Your task to perform on an android device: Show the shopping cart on bestbuy.com. Search for asus zenbook on bestbuy.com, select the first entry, and add it to the cart. Image 0: 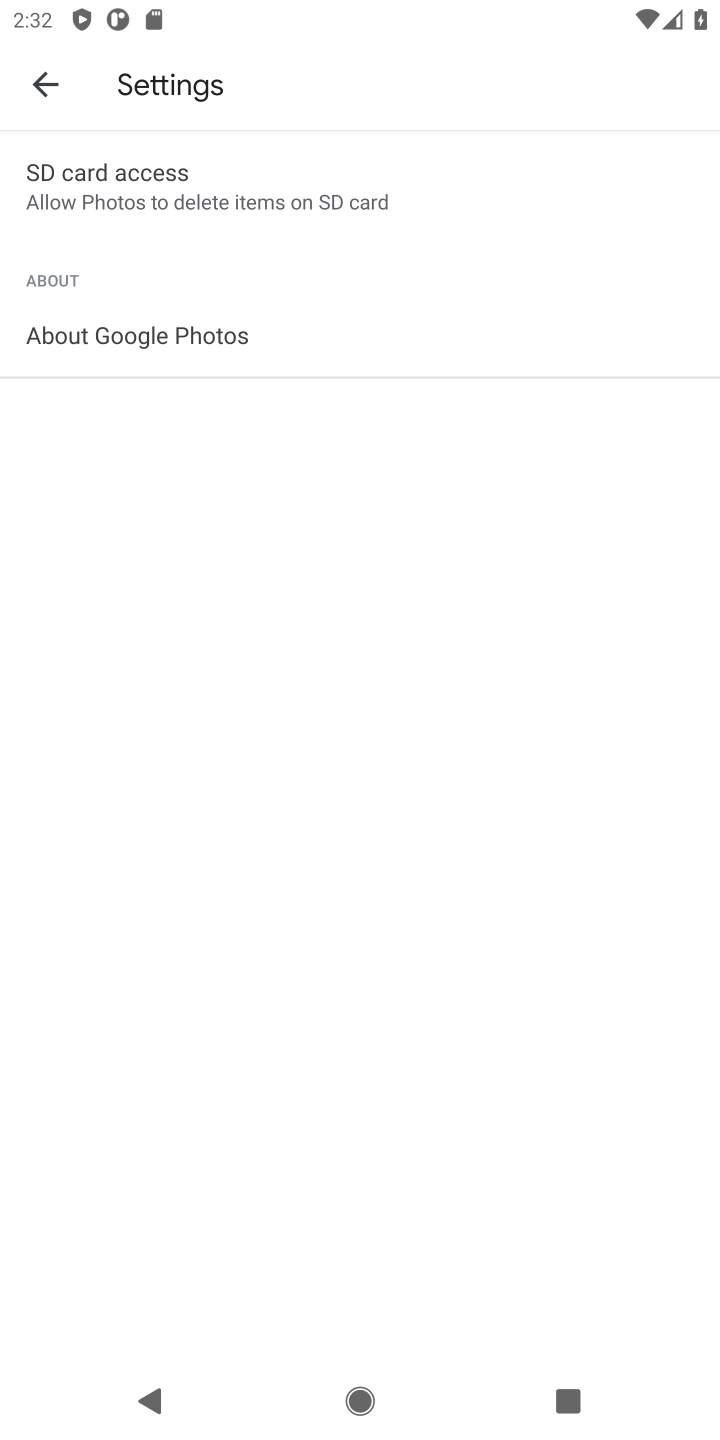
Step 0: press home button
Your task to perform on an android device: Show the shopping cart on bestbuy.com. Search for asus zenbook on bestbuy.com, select the first entry, and add it to the cart. Image 1: 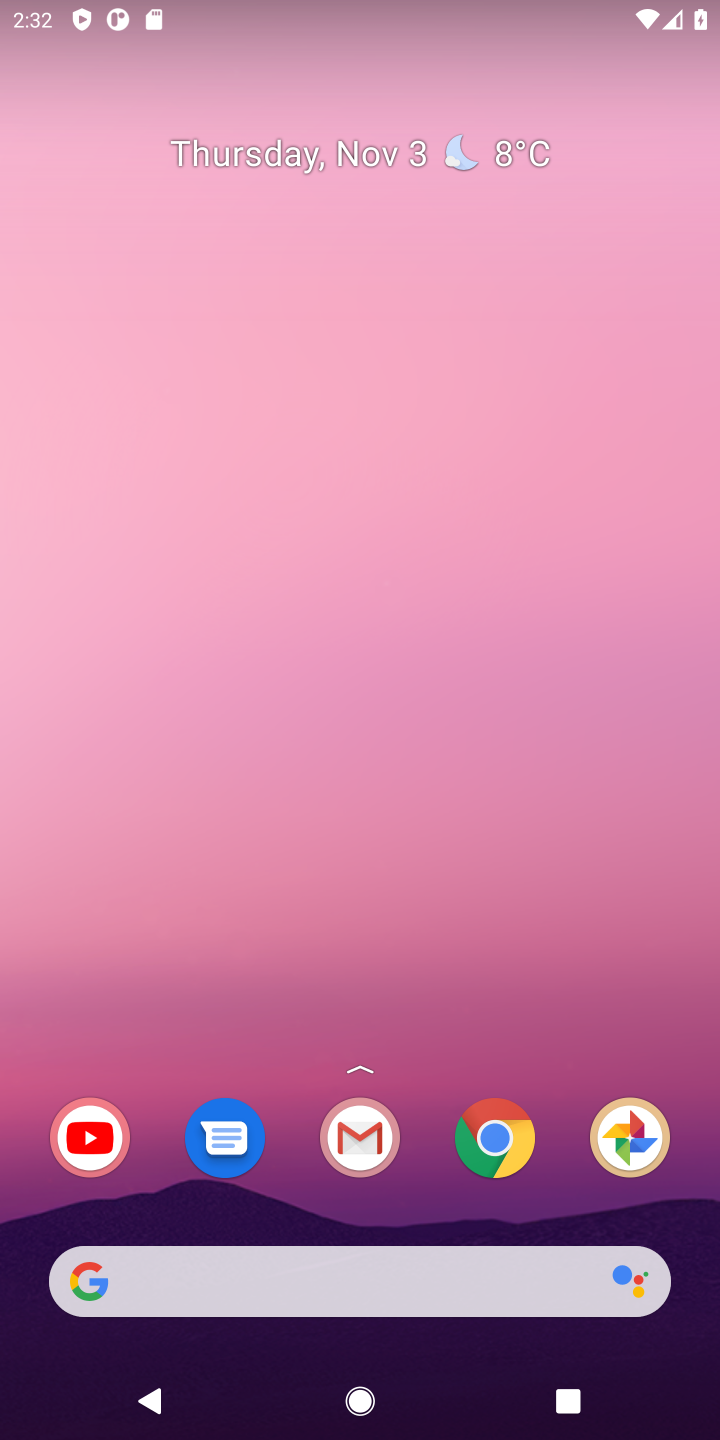
Step 1: click (515, 1151)
Your task to perform on an android device: Show the shopping cart on bestbuy.com. Search for asus zenbook on bestbuy.com, select the first entry, and add it to the cart. Image 2: 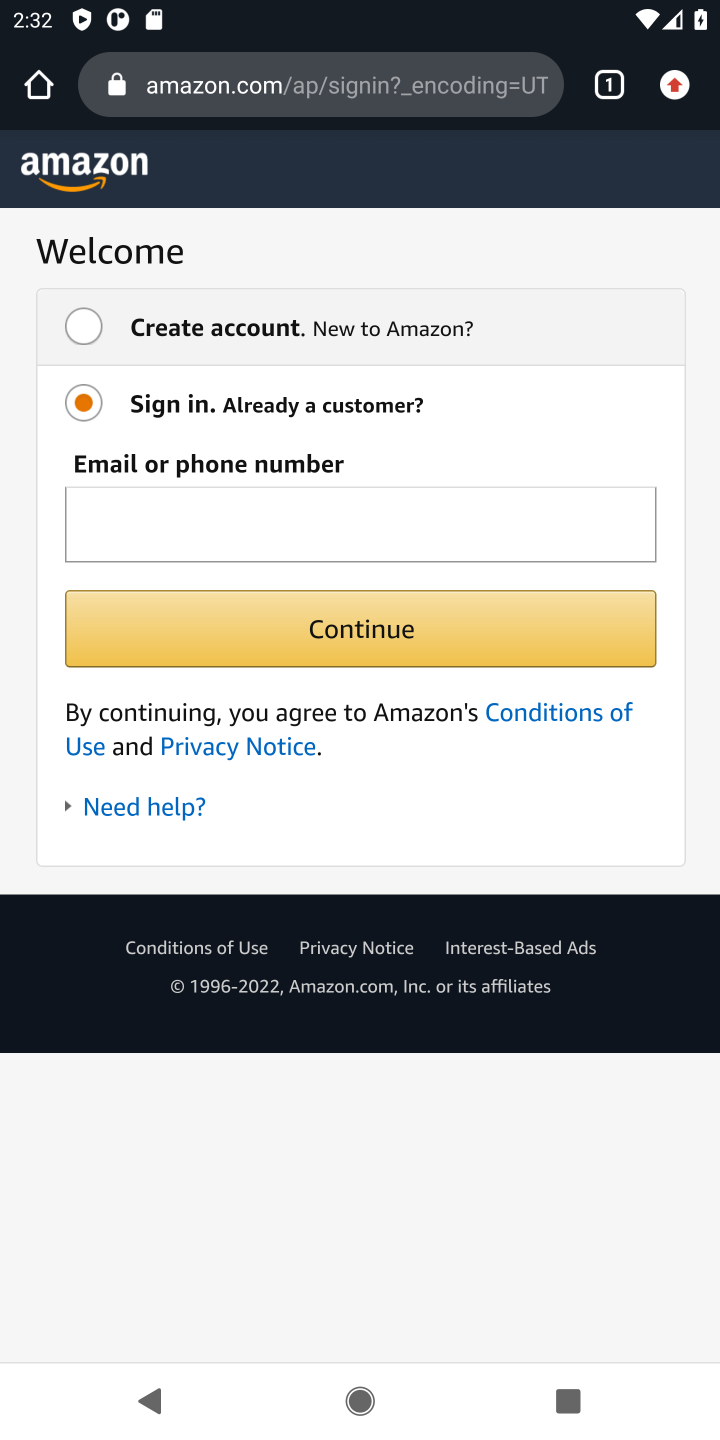
Step 2: click (271, 74)
Your task to perform on an android device: Show the shopping cart on bestbuy.com. Search for asus zenbook on bestbuy.com, select the first entry, and add it to the cart. Image 3: 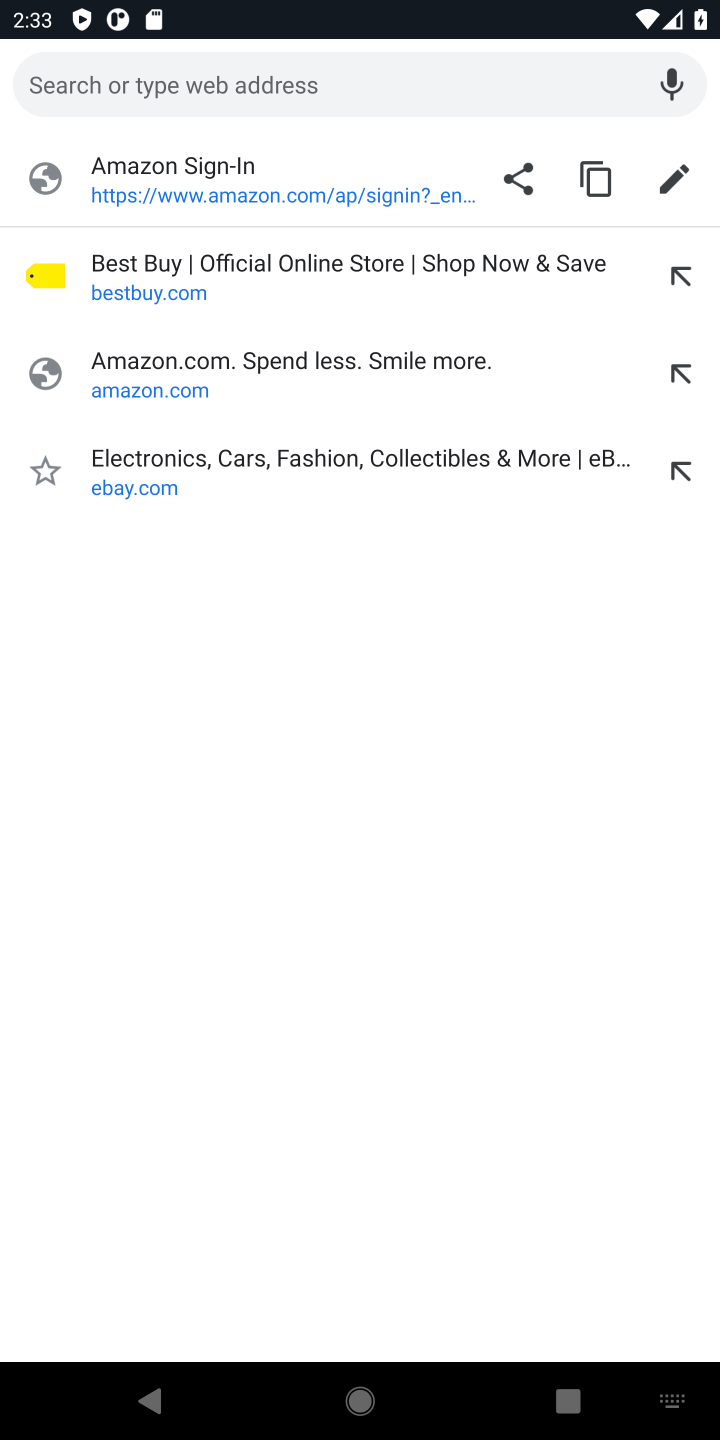
Step 3: click (294, 294)
Your task to perform on an android device: Show the shopping cart on bestbuy.com. Search for asus zenbook on bestbuy.com, select the first entry, and add it to the cart. Image 4: 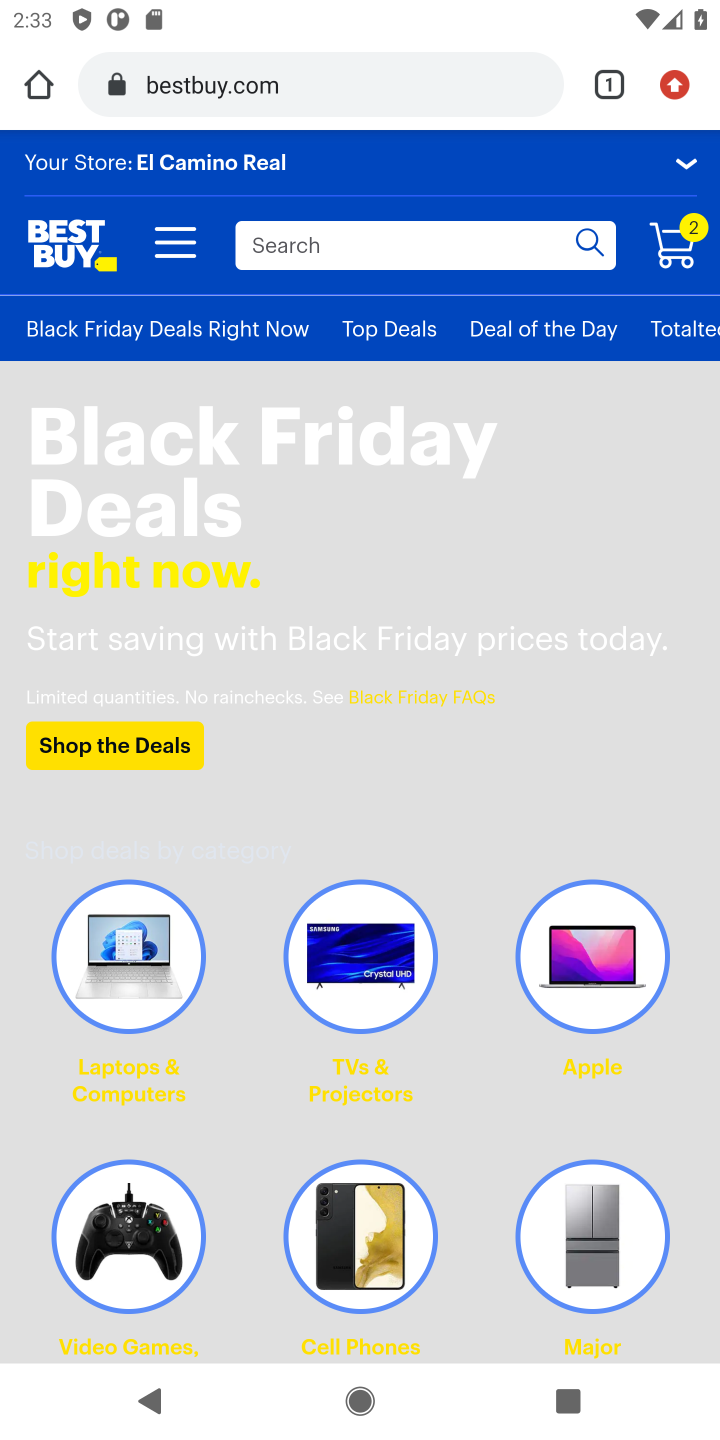
Step 4: click (690, 259)
Your task to perform on an android device: Show the shopping cart on bestbuy.com. Search for asus zenbook on bestbuy.com, select the first entry, and add it to the cart. Image 5: 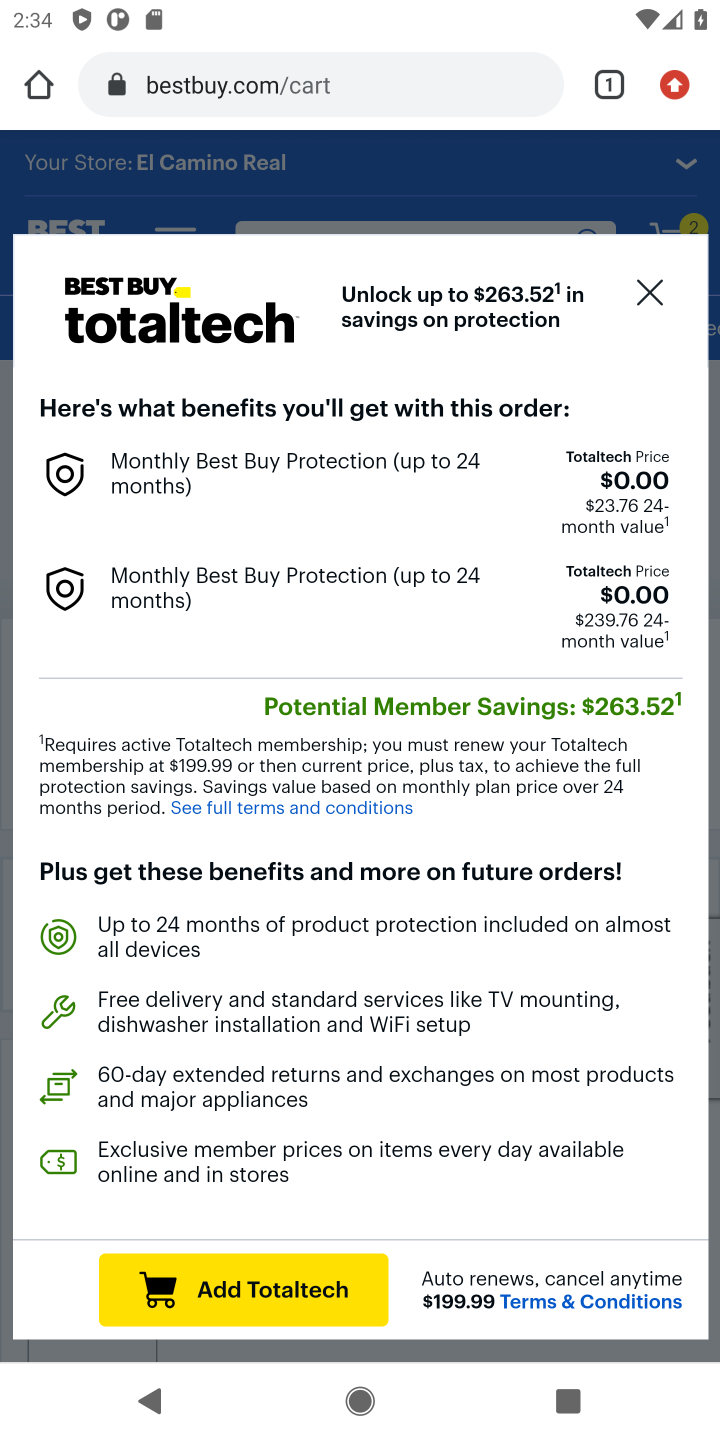
Step 5: click (658, 279)
Your task to perform on an android device: Show the shopping cart on bestbuy.com. Search for asus zenbook on bestbuy.com, select the first entry, and add it to the cart. Image 6: 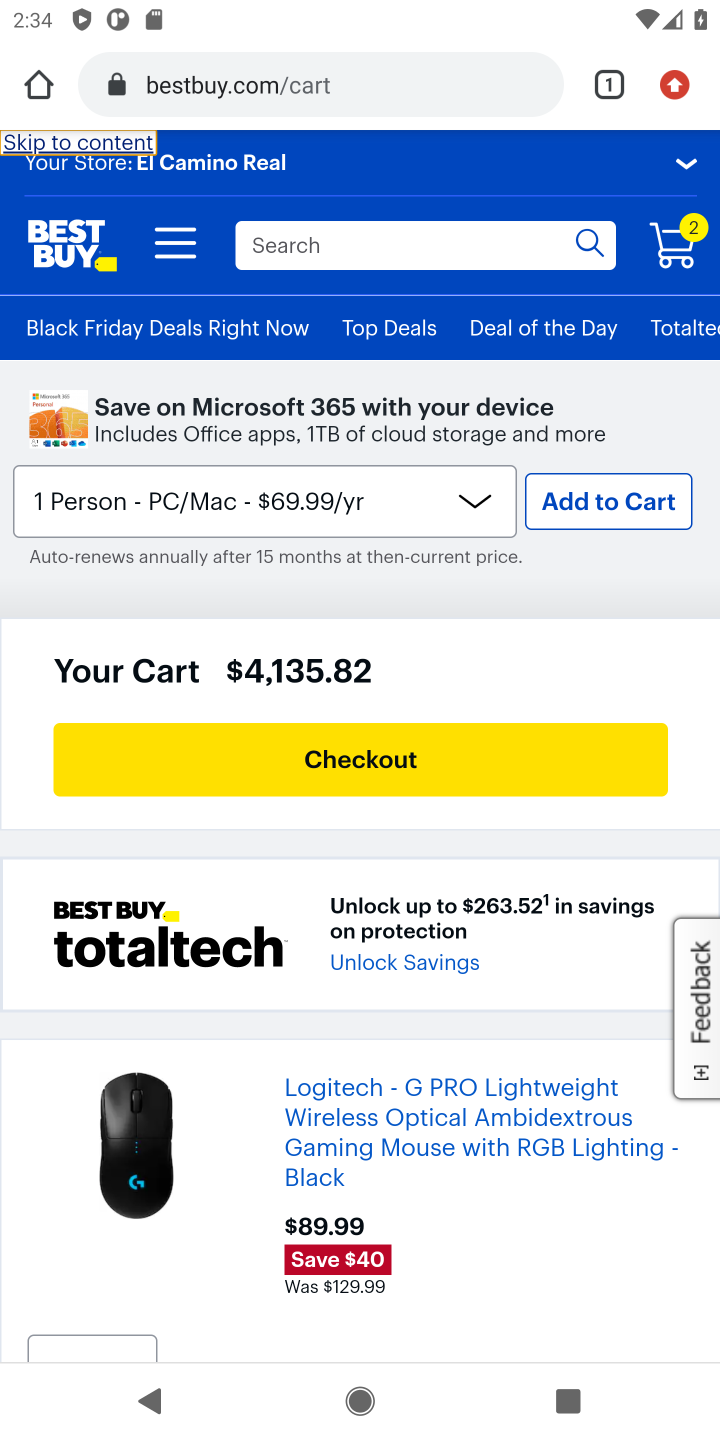
Step 6: click (515, 235)
Your task to perform on an android device: Show the shopping cart on bestbuy.com. Search for asus zenbook on bestbuy.com, select the first entry, and add it to the cart. Image 7: 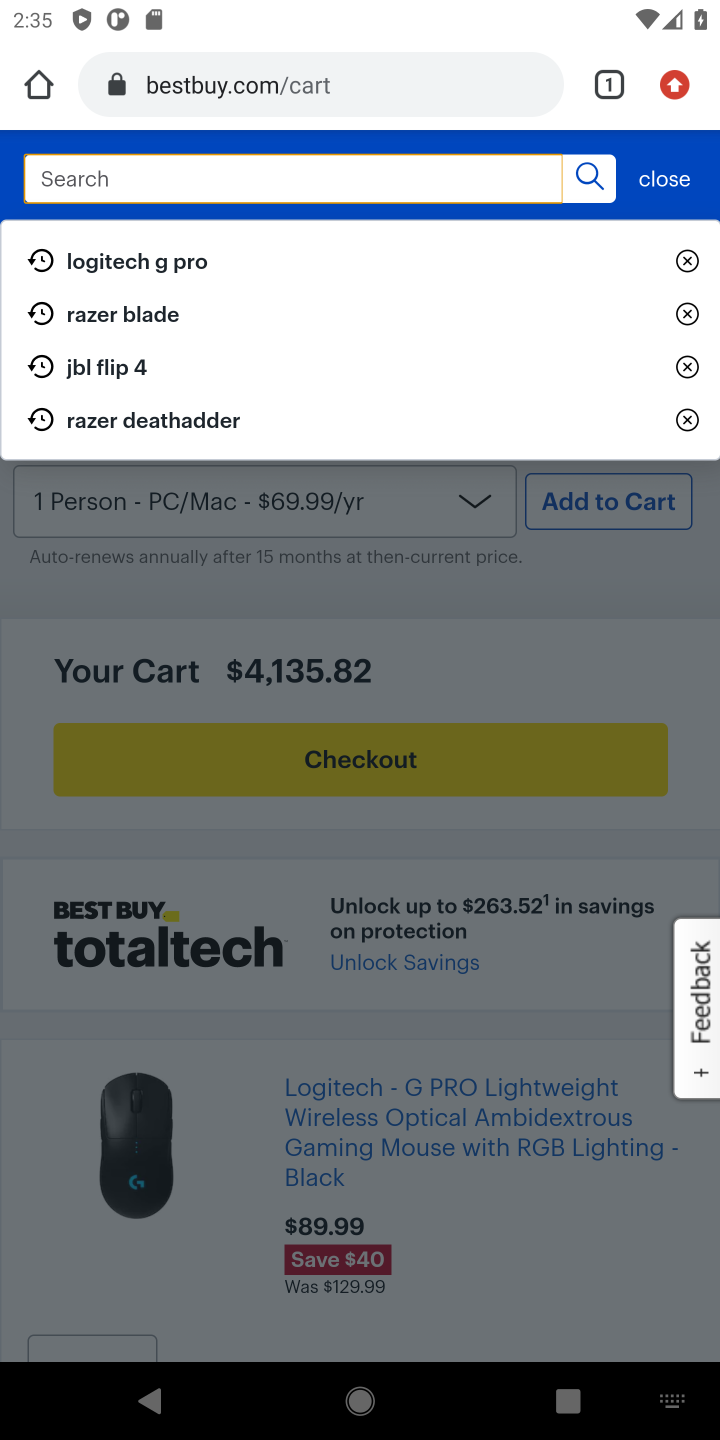
Step 7: type "aasus zenbook"
Your task to perform on an android device: Show the shopping cart on bestbuy.com. Search for asus zenbook on bestbuy.com, select the first entry, and add it to the cart. Image 8: 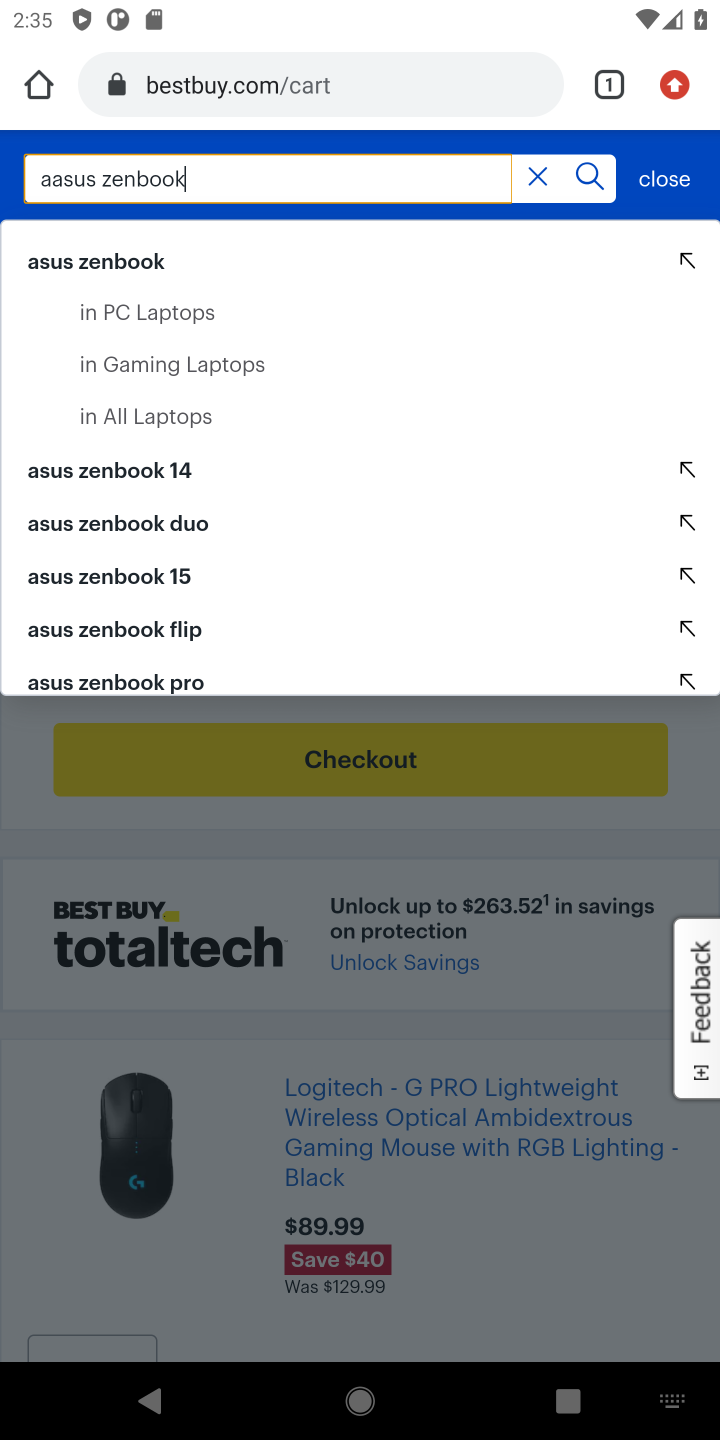
Step 8: click (591, 179)
Your task to perform on an android device: Show the shopping cart on bestbuy.com. Search for asus zenbook on bestbuy.com, select the first entry, and add it to the cart. Image 9: 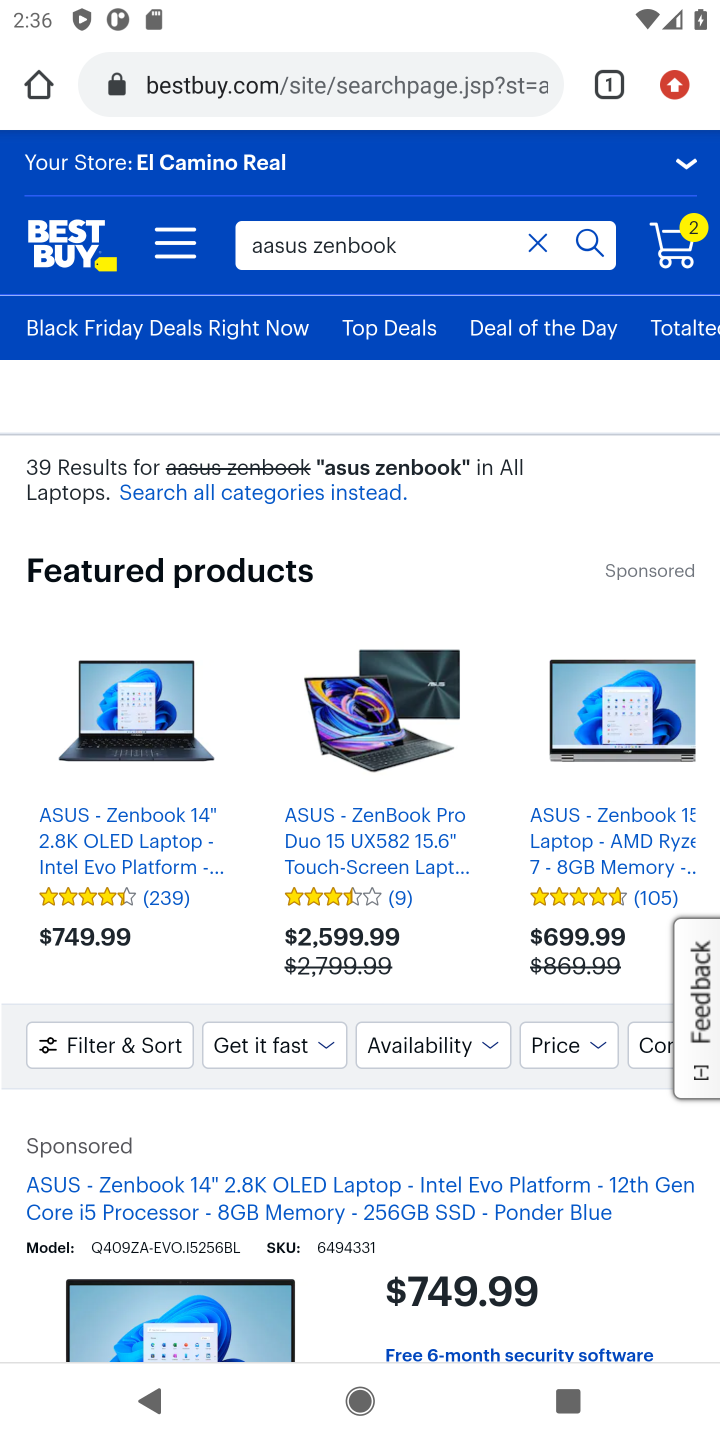
Step 9: drag from (338, 1317) to (399, 424)
Your task to perform on an android device: Show the shopping cart on bestbuy.com. Search for asus zenbook on bestbuy.com, select the first entry, and add it to the cart. Image 10: 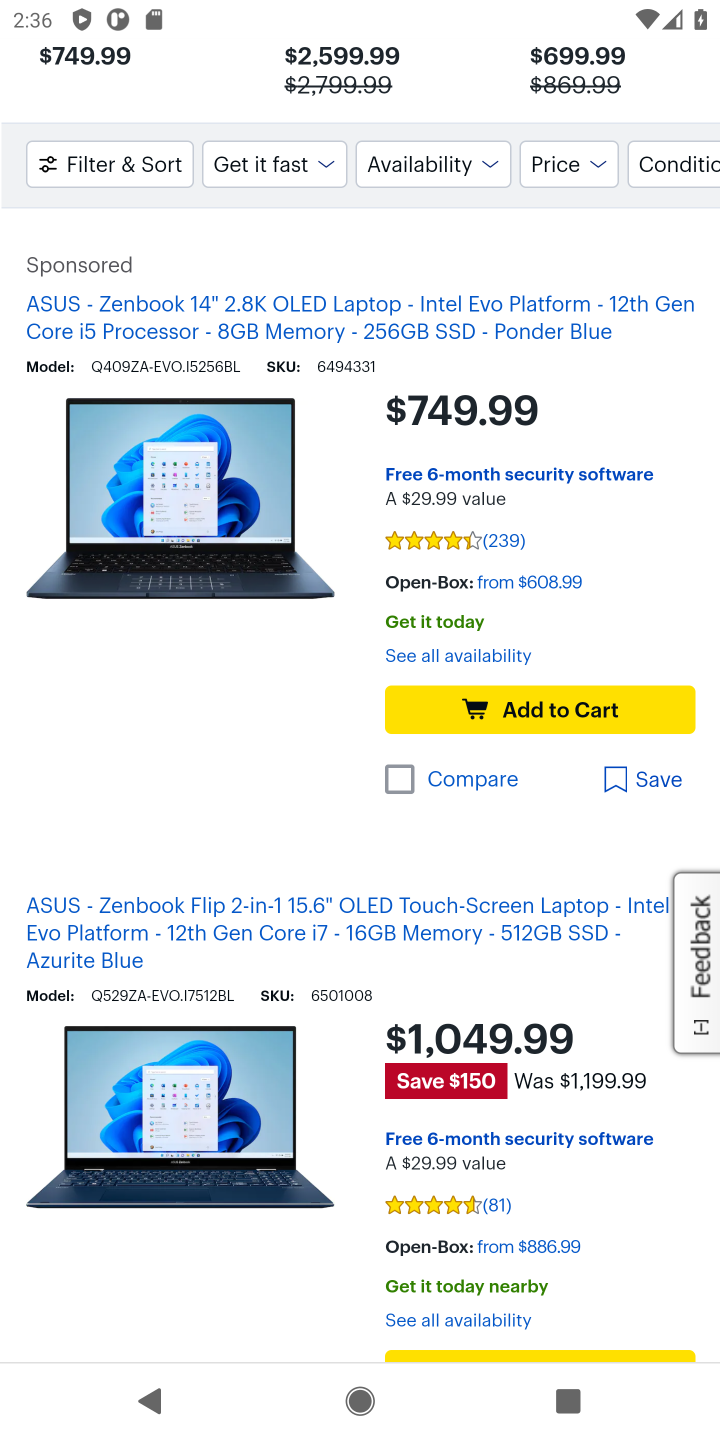
Step 10: click (575, 714)
Your task to perform on an android device: Show the shopping cart on bestbuy.com. Search for asus zenbook on bestbuy.com, select the first entry, and add it to the cart. Image 11: 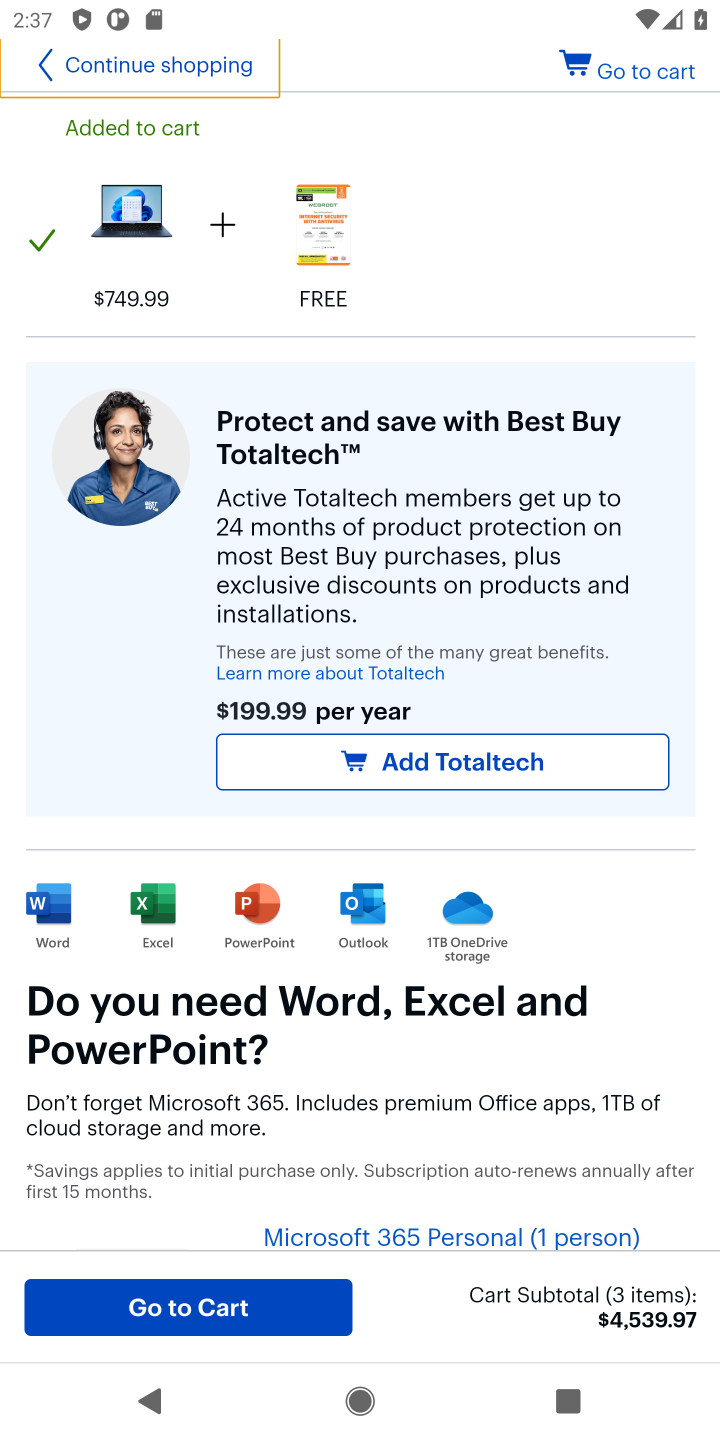
Step 11: task complete